Your task to perform on an android device: When is my next meeting? Image 0: 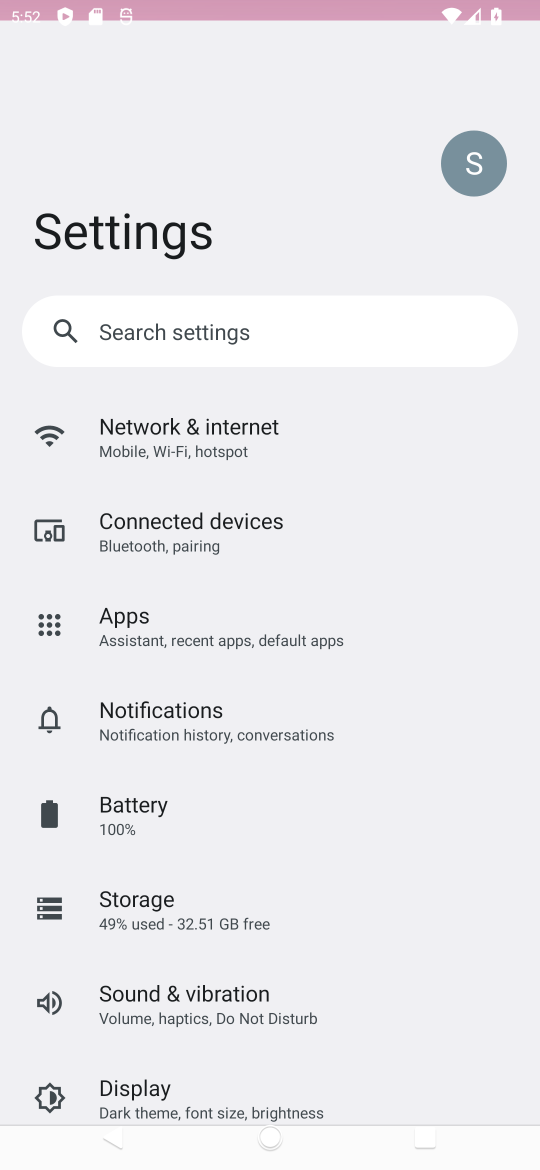
Step 0: press home button
Your task to perform on an android device: When is my next meeting? Image 1: 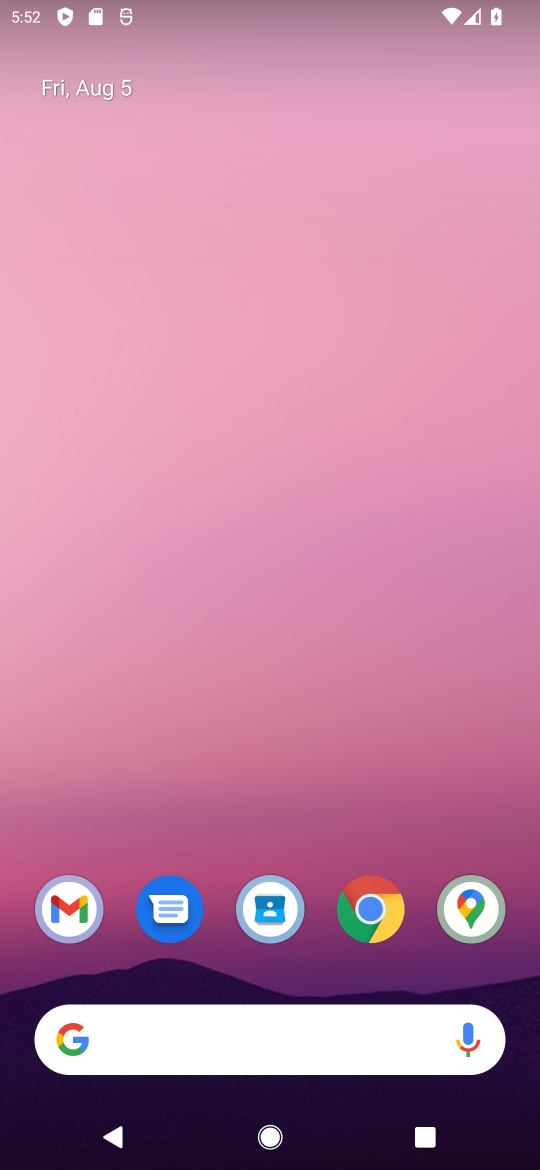
Step 1: drag from (283, 745) to (396, 66)
Your task to perform on an android device: When is my next meeting? Image 2: 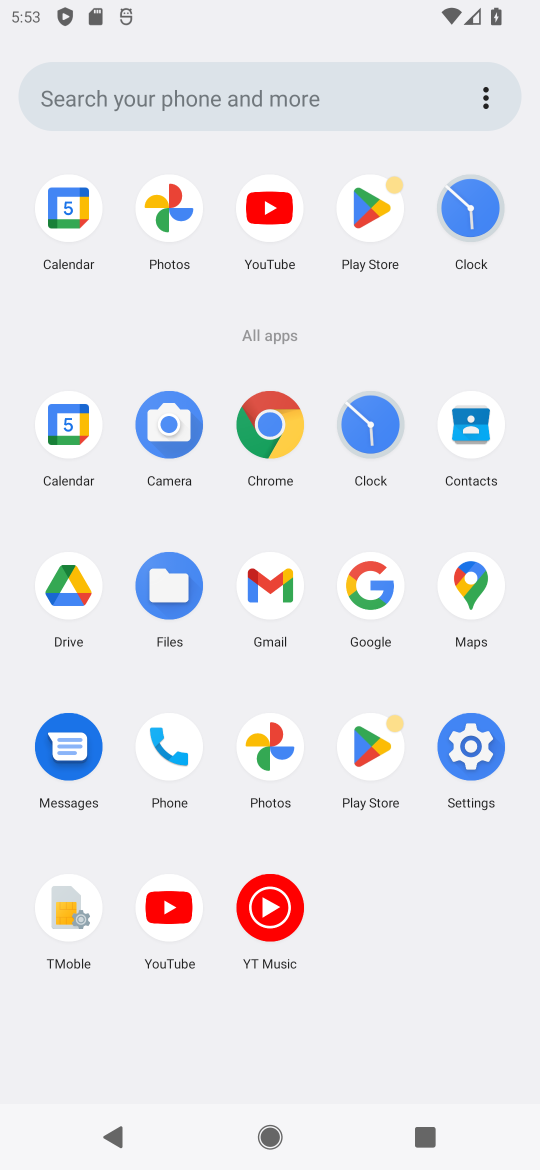
Step 2: click (67, 213)
Your task to perform on an android device: When is my next meeting? Image 3: 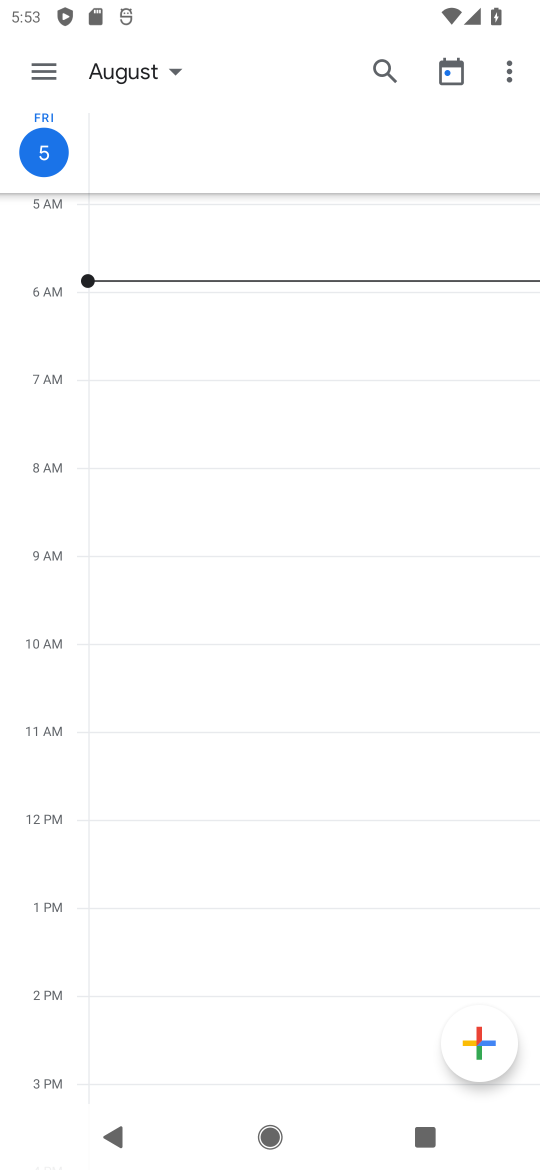
Step 3: click (27, 74)
Your task to perform on an android device: When is my next meeting? Image 4: 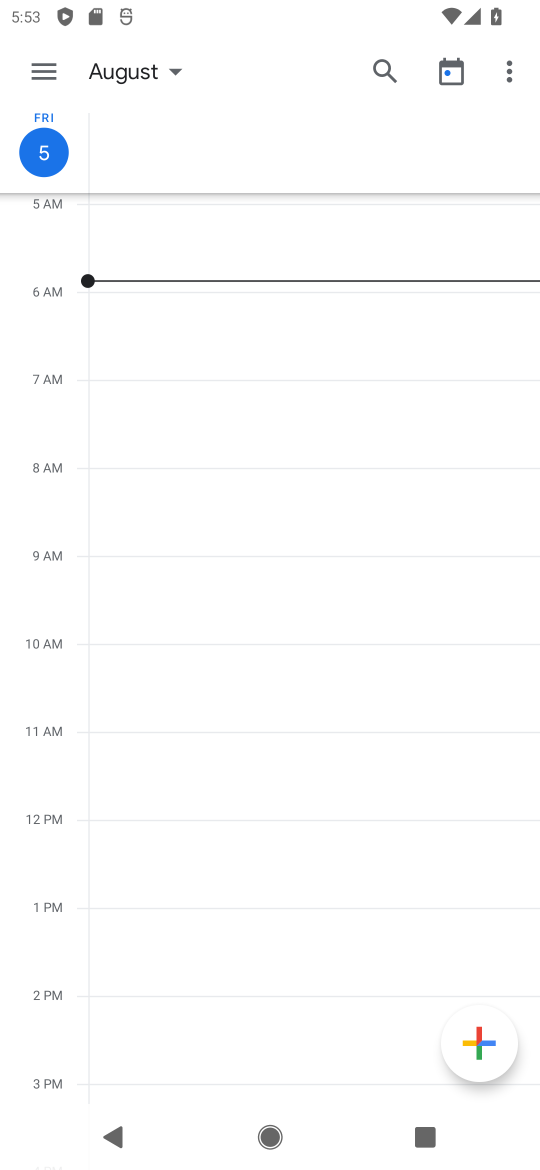
Step 4: click (44, 69)
Your task to perform on an android device: When is my next meeting? Image 5: 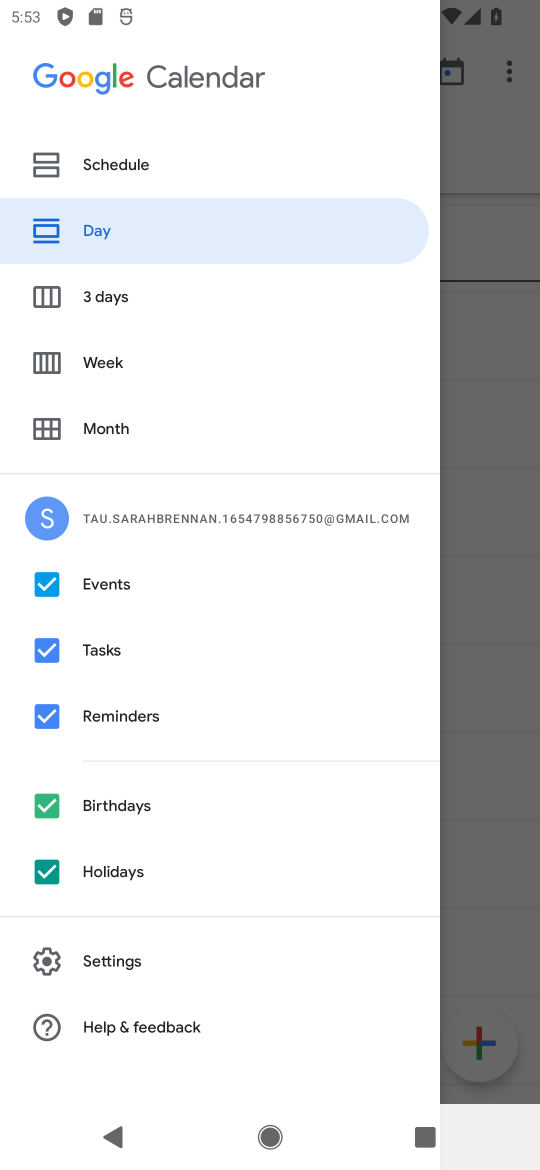
Step 5: click (117, 159)
Your task to perform on an android device: When is my next meeting? Image 6: 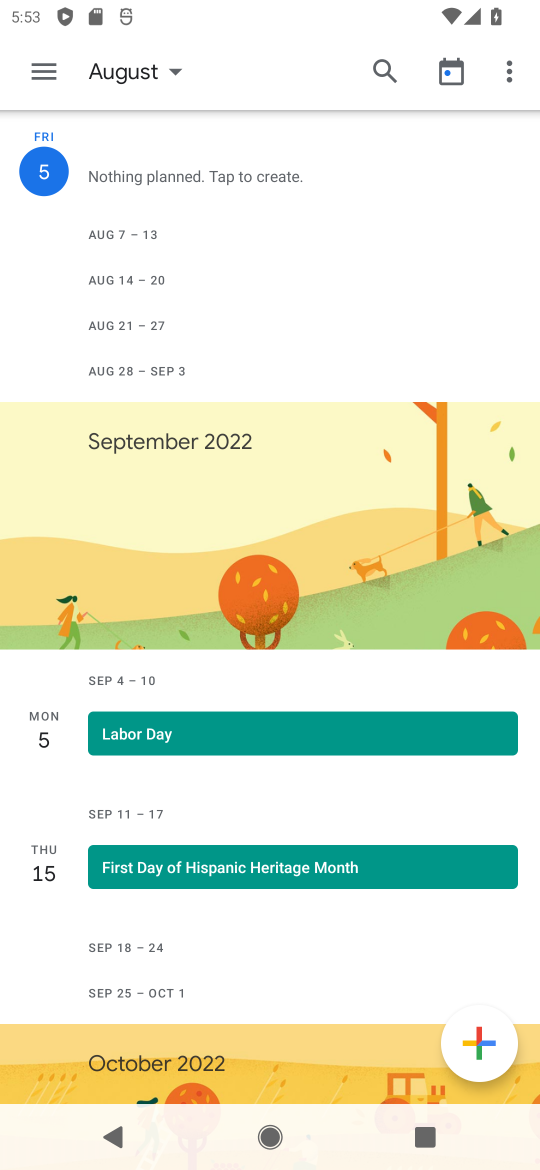
Step 6: task complete